Your task to perform on an android device: Open the phone app and click the voicemail tab. Image 0: 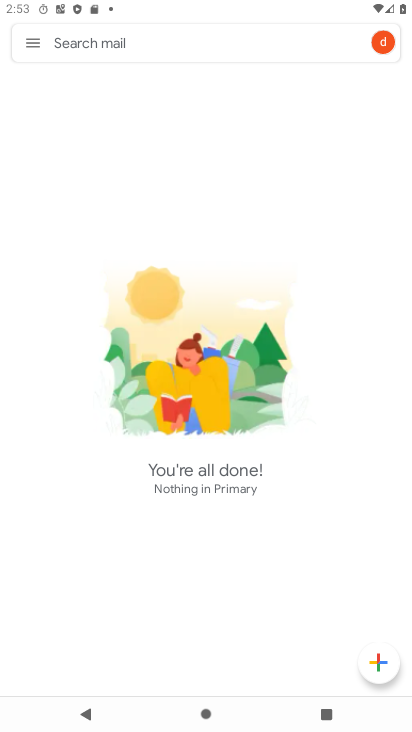
Step 0: press home button
Your task to perform on an android device: Open the phone app and click the voicemail tab. Image 1: 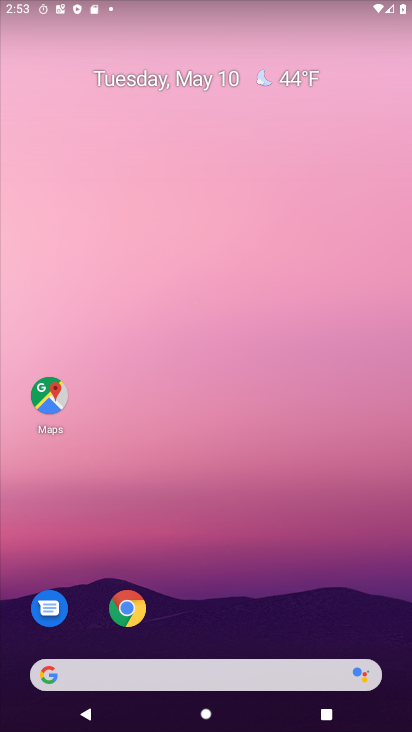
Step 1: drag from (325, 599) to (302, 31)
Your task to perform on an android device: Open the phone app and click the voicemail tab. Image 2: 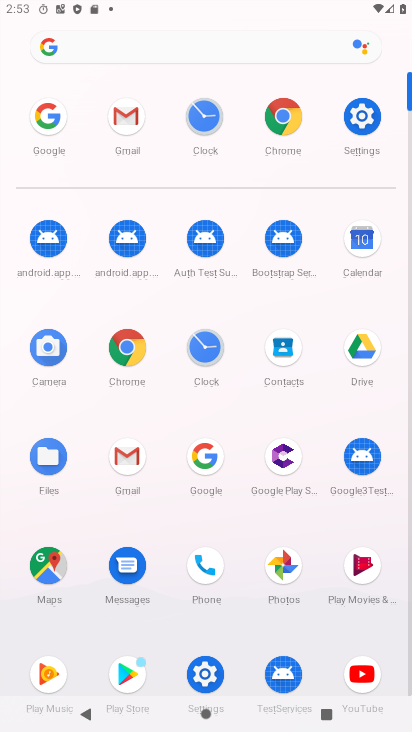
Step 2: click (201, 571)
Your task to perform on an android device: Open the phone app and click the voicemail tab. Image 3: 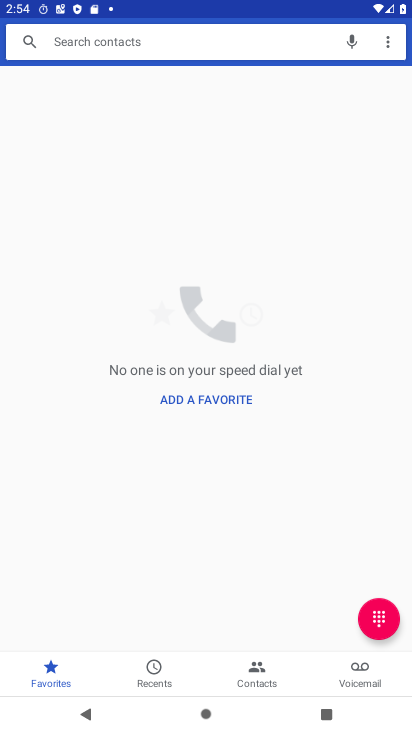
Step 3: click (364, 681)
Your task to perform on an android device: Open the phone app and click the voicemail tab. Image 4: 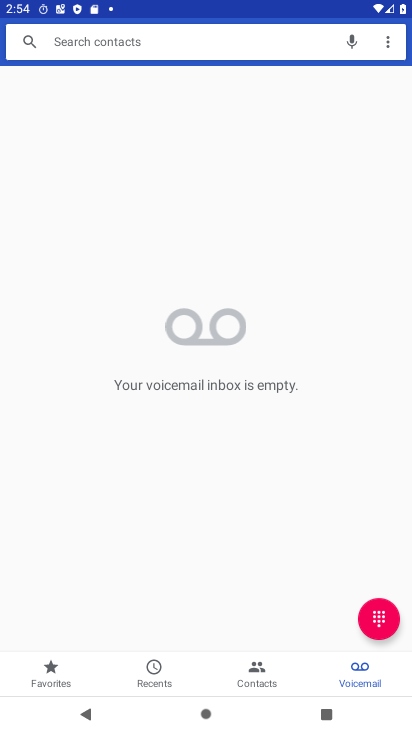
Step 4: task complete